Your task to perform on an android device: snooze an email in the gmail app Image 0: 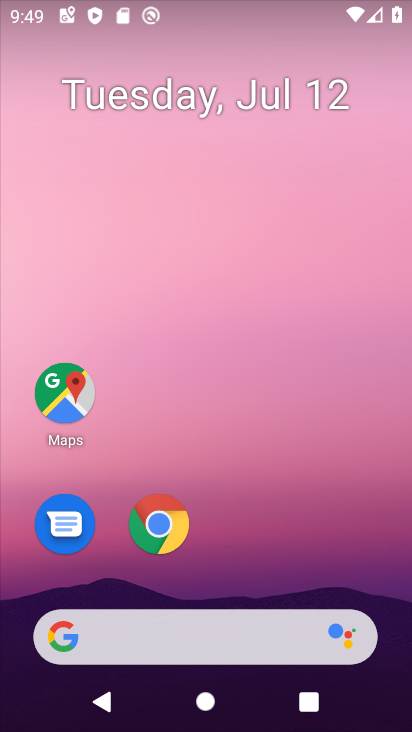
Step 0: drag from (273, 547) to (309, 56)
Your task to perform on an android device: snooze an email in the gmail app Image 1: 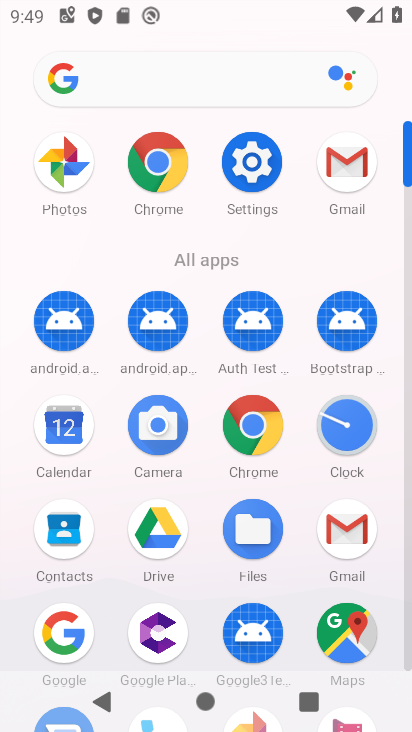
Step 1: click (363, 180)
Your task to perform on an android device: snooze an email in the gmail app Image 2: 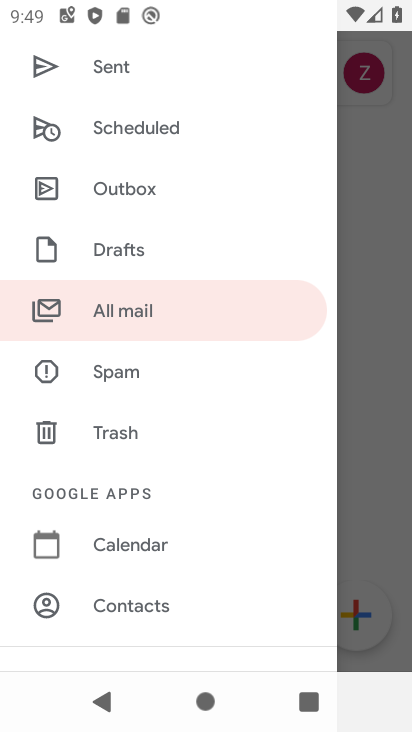
Step 2: click (363, 178)
Your task to perform on an android device: snooze an email in the gmail app Image 3: 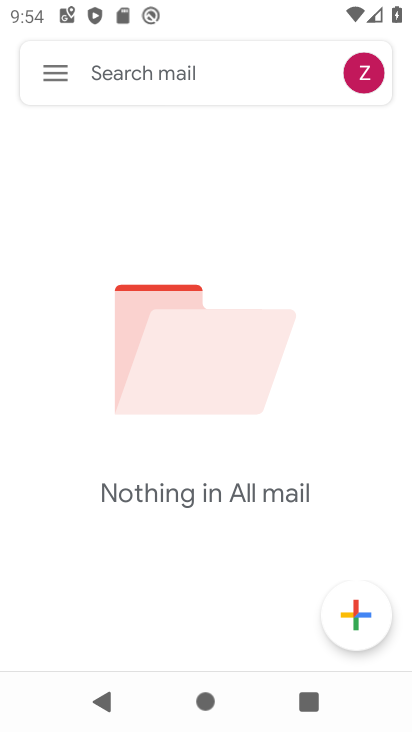
Step 3: task complete